Your task to perform on an android device: Do I have any events this weekend? Image 0: 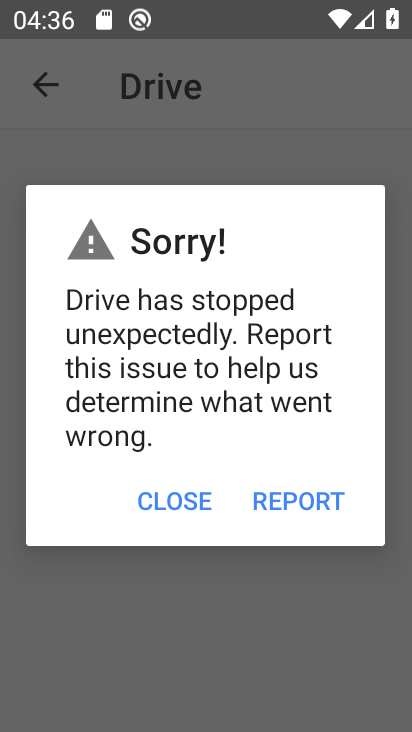
Step 0: press home button
Your task to perform on an android device: Do I have any events this weekend? Image 1: 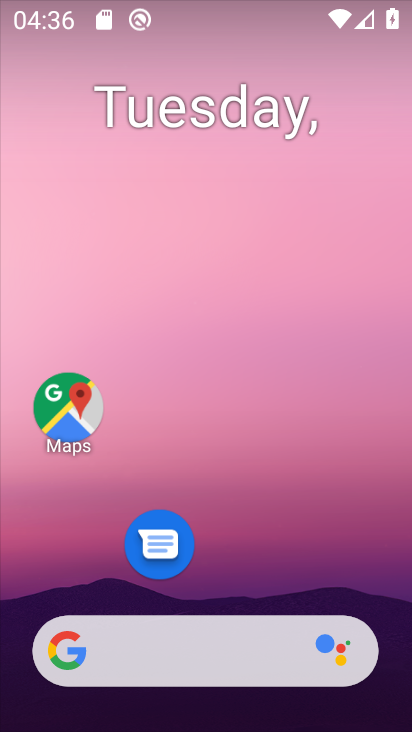
Step 1: drag from (218, 598) to (242, 85)
Your task to perform on an android device: Do I have any events this weekend? Image 2: 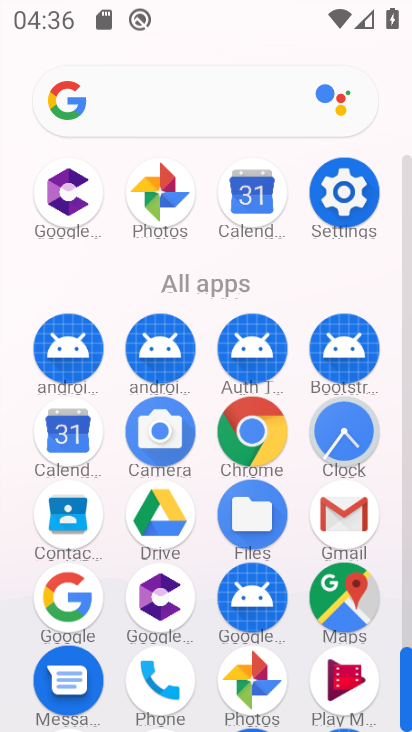
Step 2: click (56, 442)
Your task to perform on an android device: Do I have any events this weekend? Image 3: 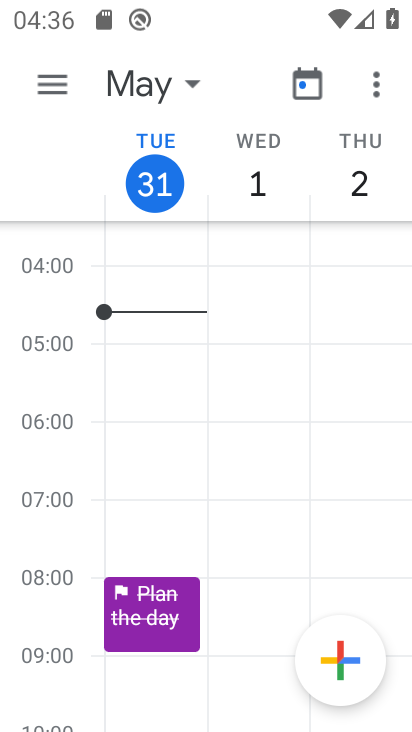
Step 3: click (38, 76)
Your task to perform on an android device: Do I have any events this weekend? Image 4: 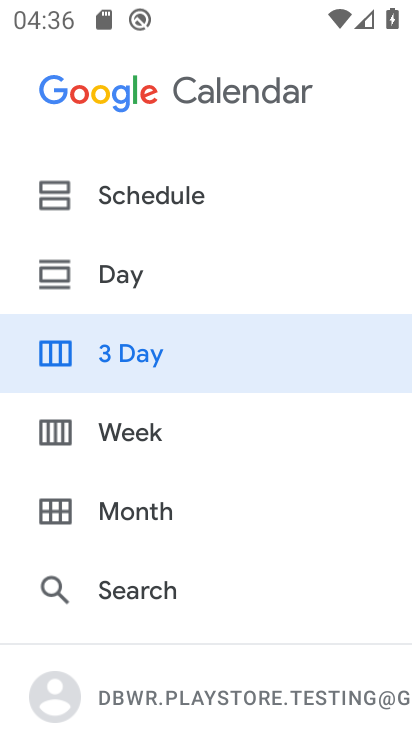
Step 4: click (160, 436)
Your task to perform on an android device: Do I have any events this weekend? Image 5: 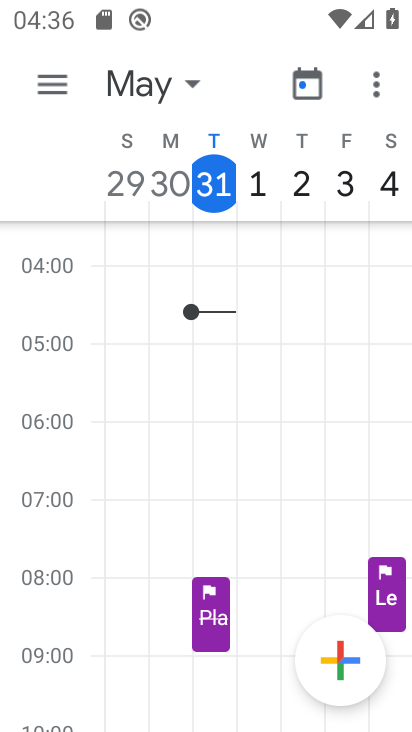
Step 5: task complete